Your task to perform on an android device: Open Yahoo.com Image 0: 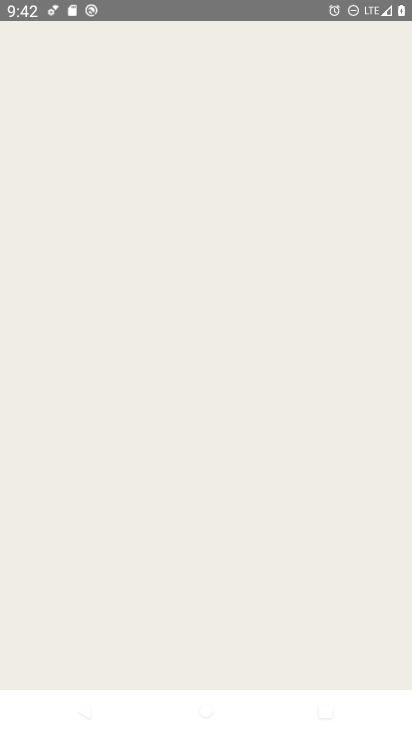
Step 0: press home button
Your task to perform on an android device: Open Yahoo.com Image 1: 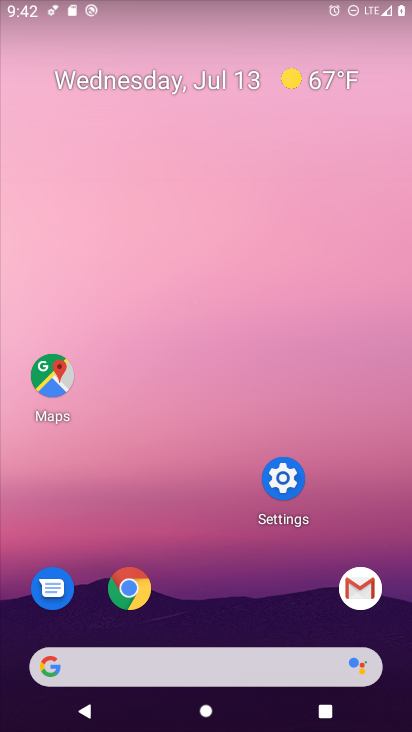
Step 1: click (208, 670)
Your task to perform on an android device: Open Yahoo.com Image 2: 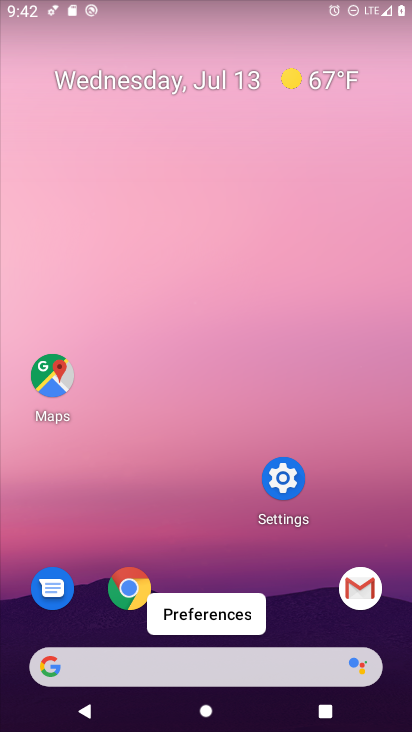
Step 2: click (137, 593)
Your task to perform on an android device: Open Yahoo.com Image 3: 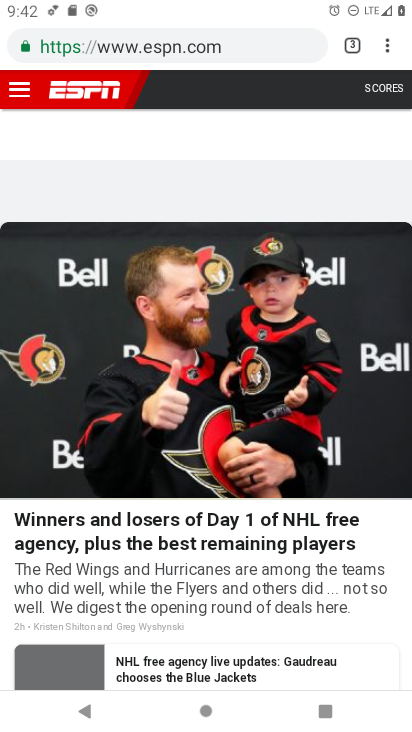
Step 3: click (353, 41)
Your task to perform on an android device: Open Yahoo.com Image 4: 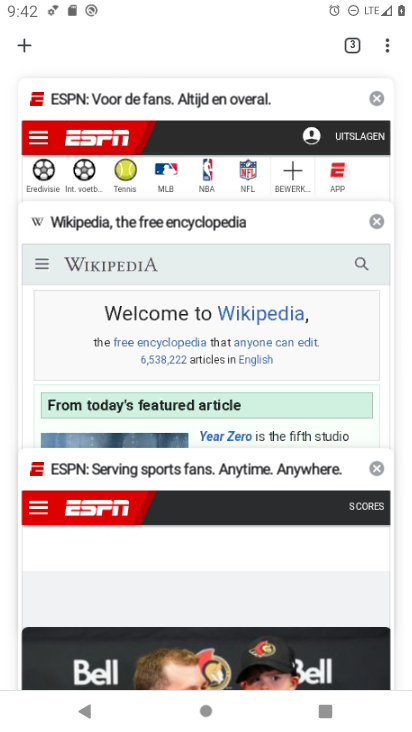
Step 4: click (23, 48)
Your task to perform on an android device: Open Yahoo.com Image 5: 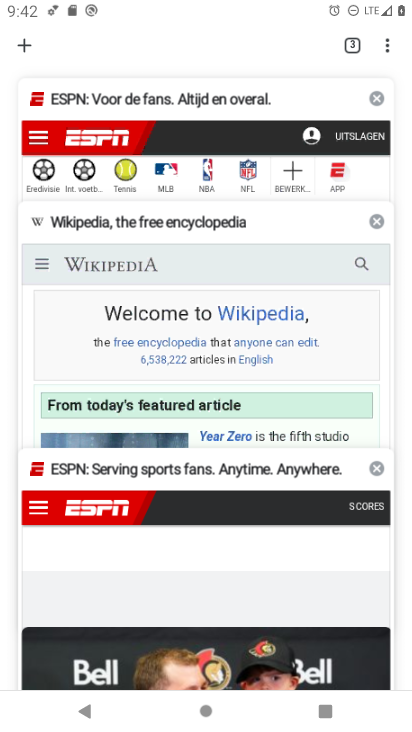
Step 5: click (28, 50)
Your task to perform on an android device: Open Yahoo.com Image 6: 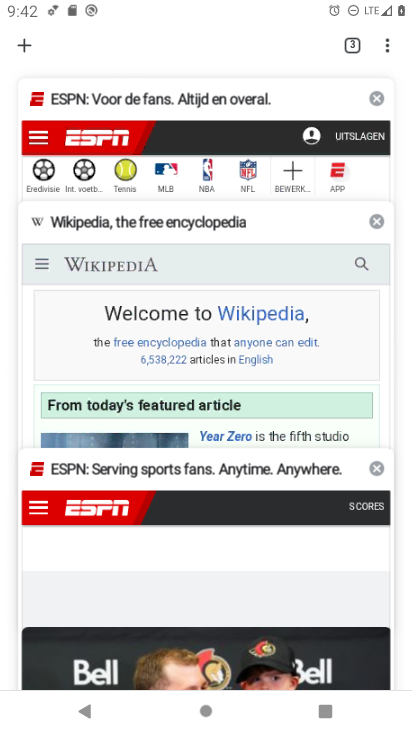
Step 6: click (19, 50)
Your task to perform on an android device: Open Yahoo.com Image 7: 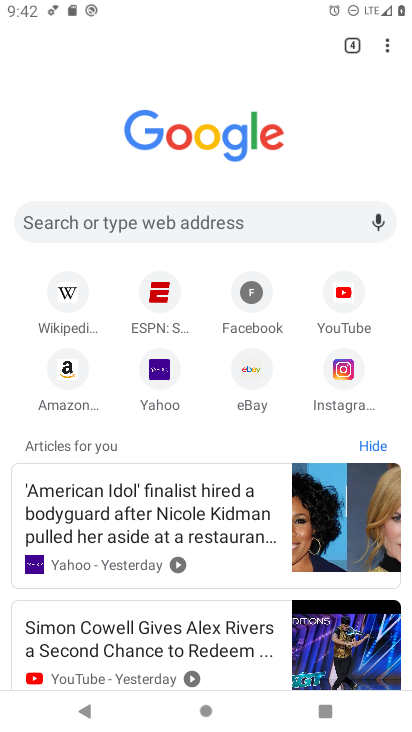
Step 7: click (157, 395)
Your task to perform on an android device: Open Yahoo.com Image 8: 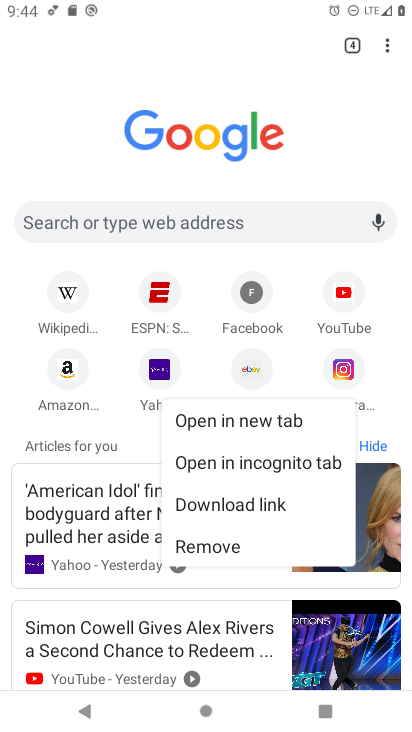
Step 8: click (155, 384)
Your task to perform on an android device: Open Yahoo.com Image 9: 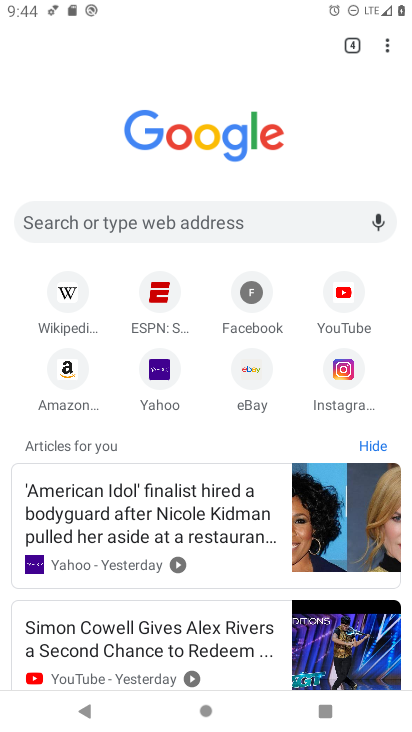
Step 9: click (166, 379)
Your task to perform on an android device: Open Yahoo.com Image 10: 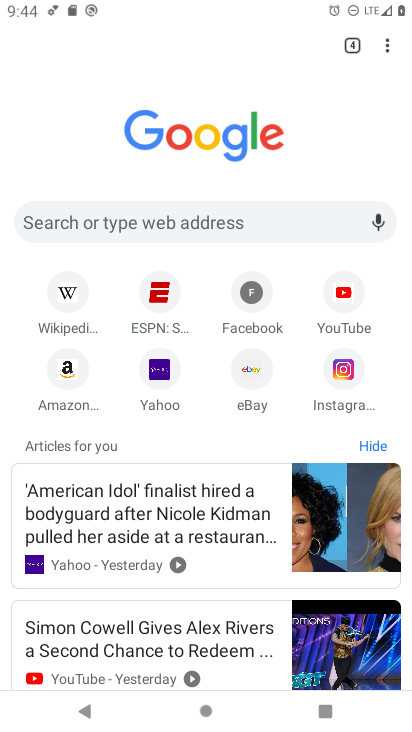
Step 10: click (166, 379)
Your task to perform on an android device: Open Yahoo.com Image 11: 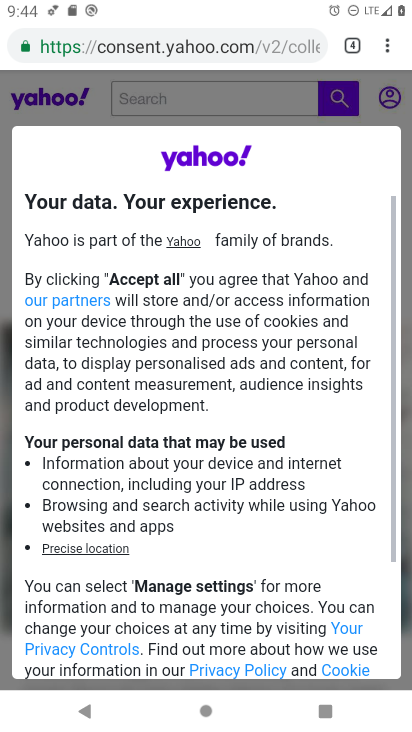
Step 11: task complete